Your task to perform on an android device: Go to ESPN.com Image 0: 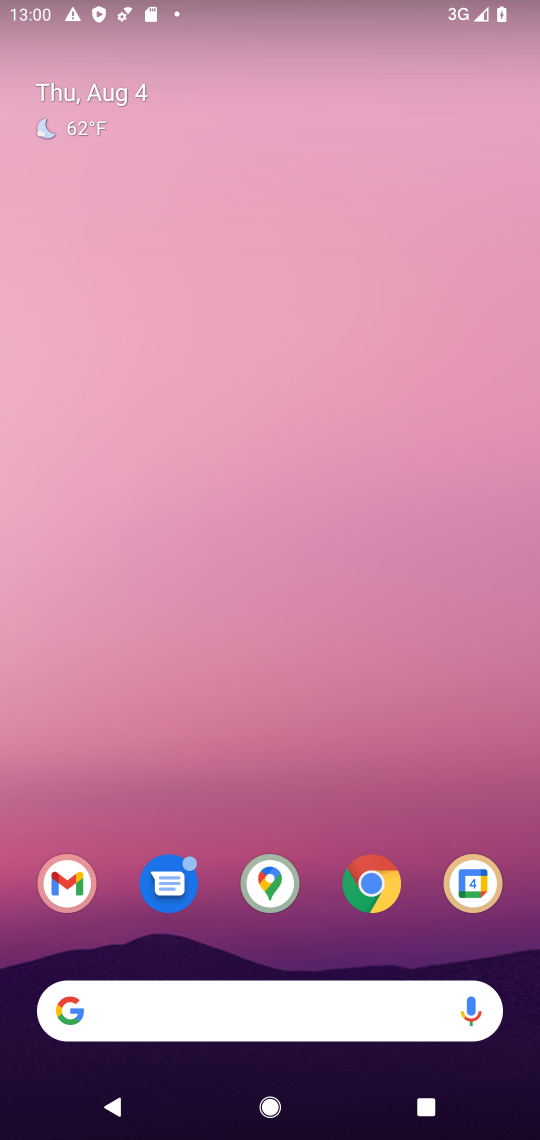
Step 0: click (198, 1008)
Your task to perform on an android device: Go to ESPN.com Image 1: 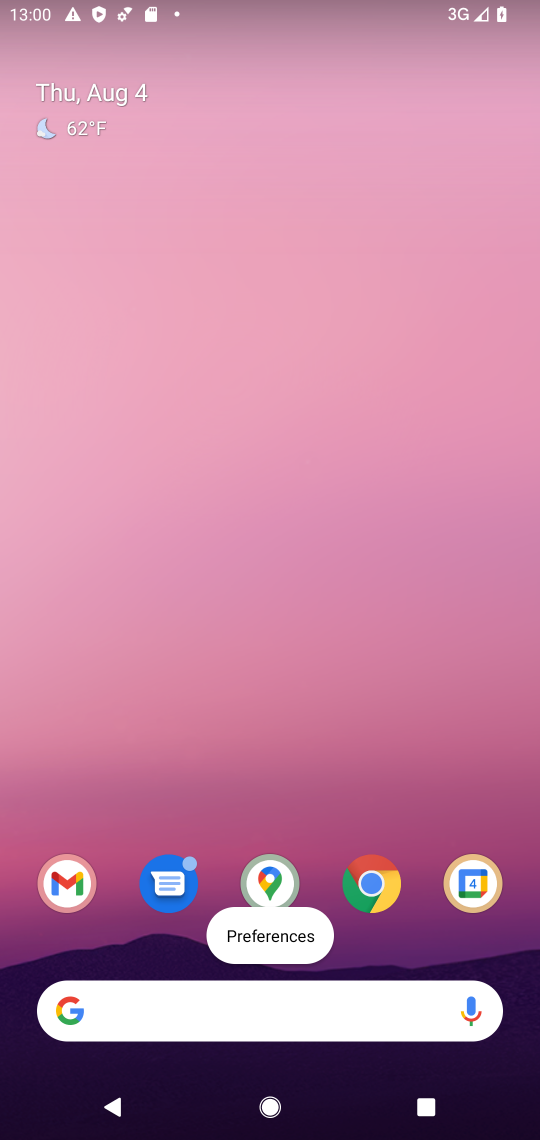
Step 1: click (212, 1001)
Your task to perform on an android device: Go to ESPN.com Image 2: 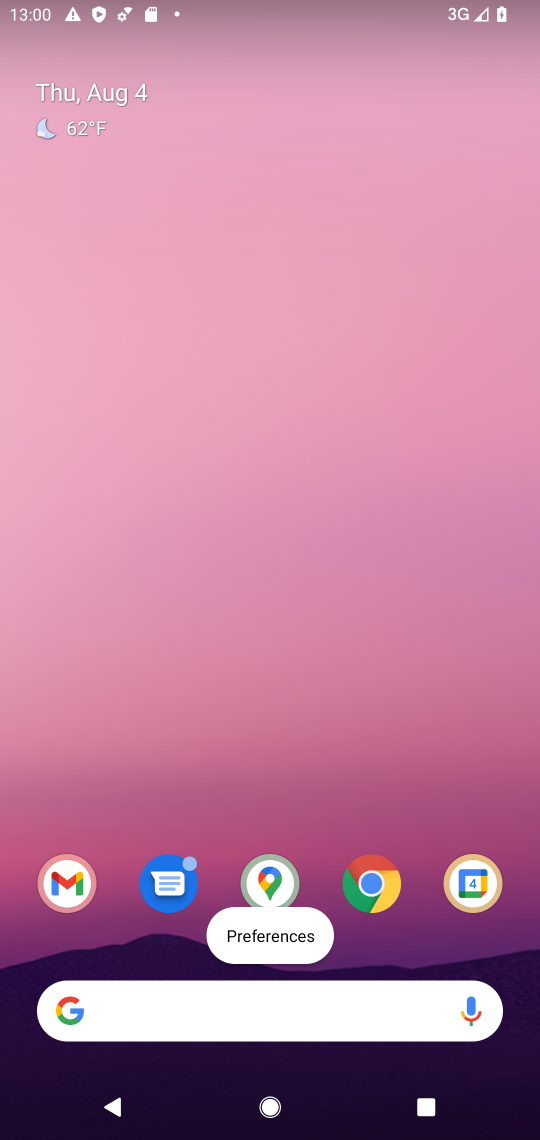
Step 2: drag from (354, 960) to (381, 268)
Your task to perform on an android device: Go to ESPN.com Image 3: 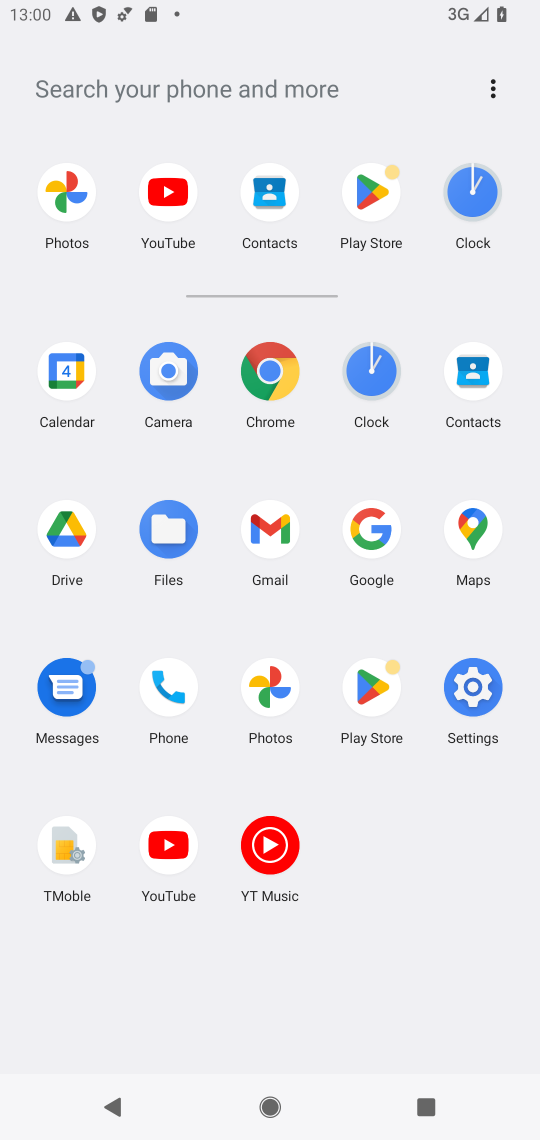
Step 3: click (201, 88)
Your task to perform on an android device: Go to ESPN.com Image 4: 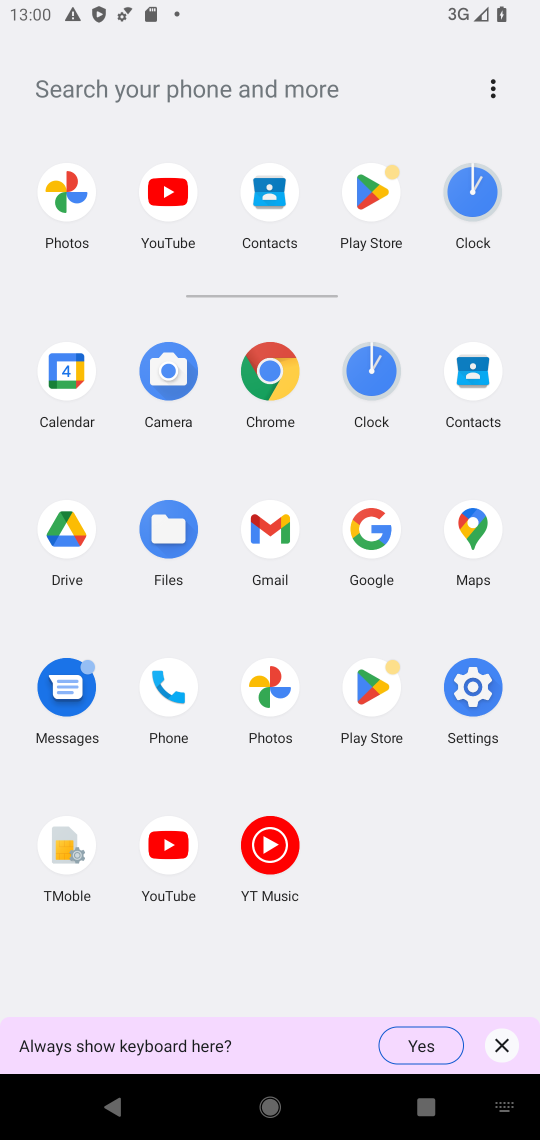
Step 4: type "espn.com"
Your task to perform on an android device: Go to ESPN.com Image 5: 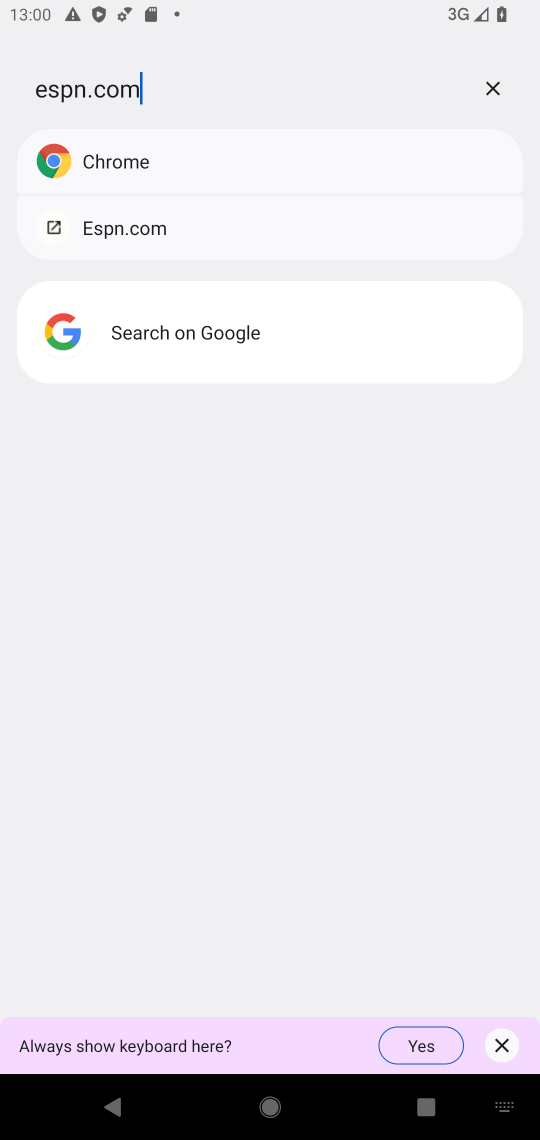
Step 5: click (131, 168)
Your task to perform on an android device: Go to ESPN.com Image 6: 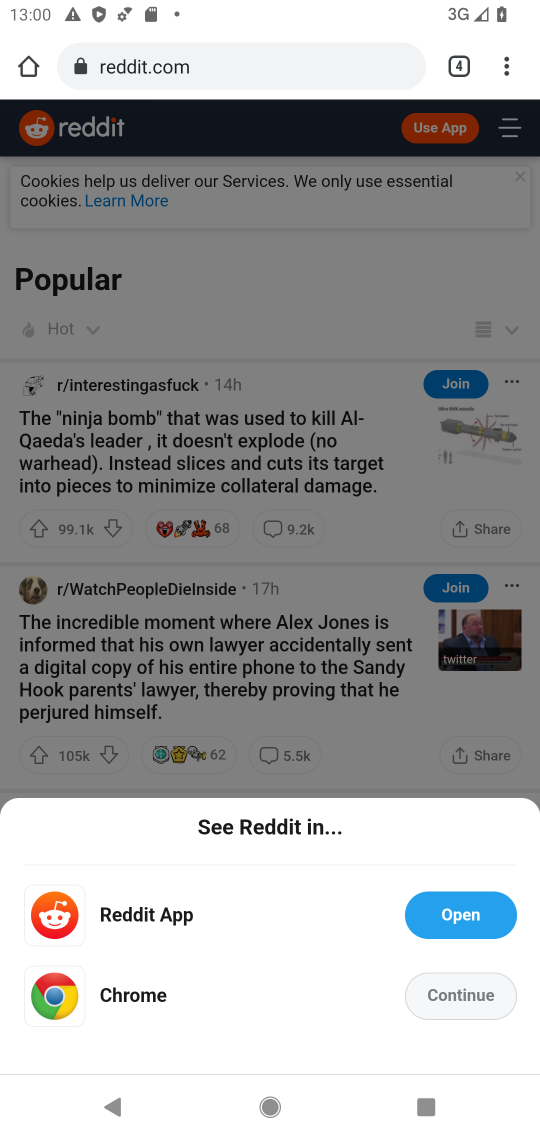
Step 6: drag from (301, 907) to (358, 477)
Your task to perform on an android device: Go to ESPN.com Image 7: 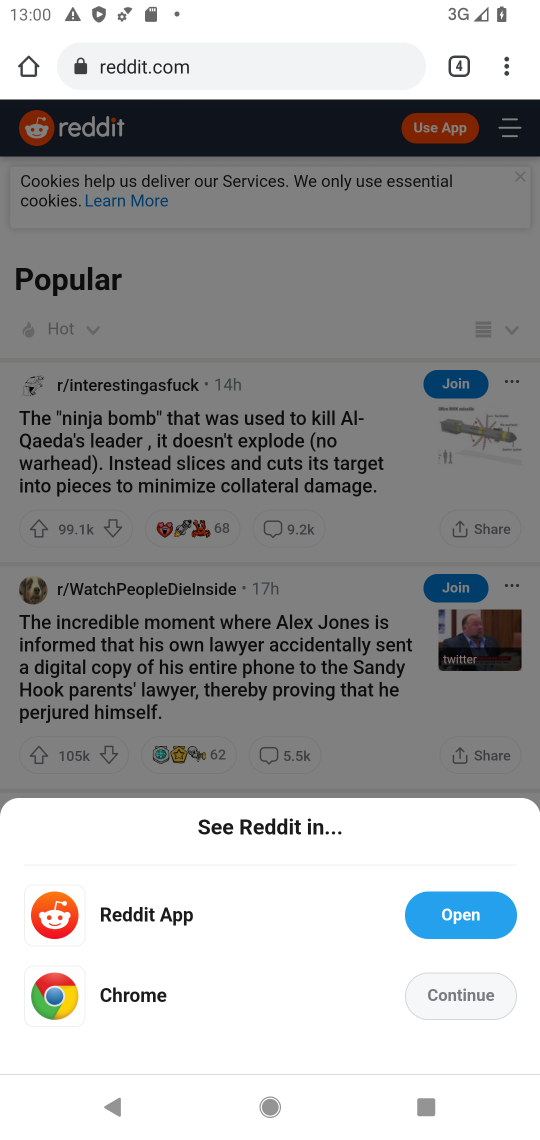
Step 7: drag from (310, 904) to (316, 675)
Your task to perform on an android device: Go to ESPN.com Image 8: 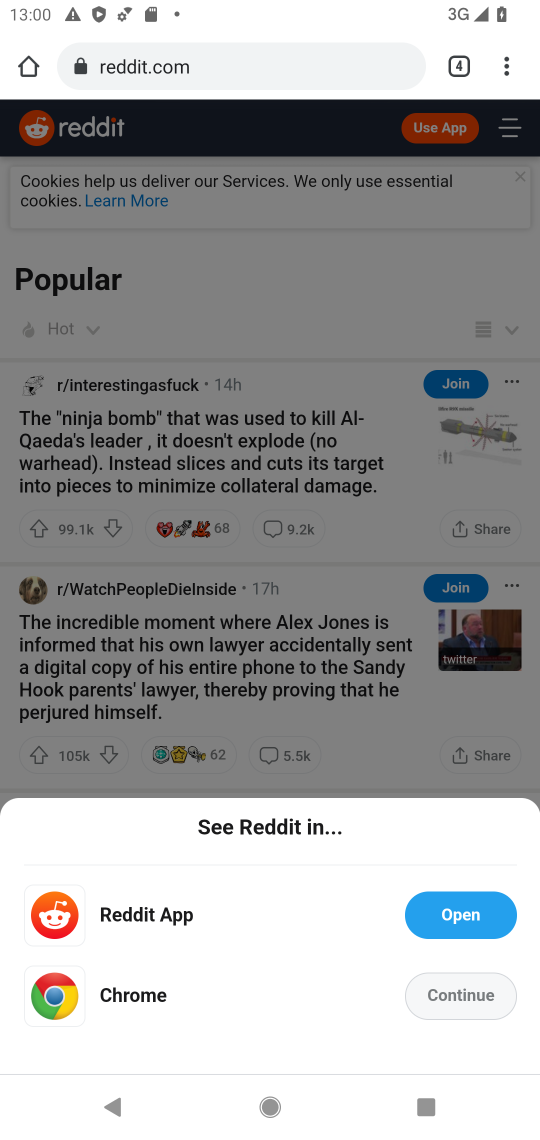
Step 8: drag from (294, 893) to (354, 528)
Your task to perform on an android device: Go to ESPN.com Image 9: 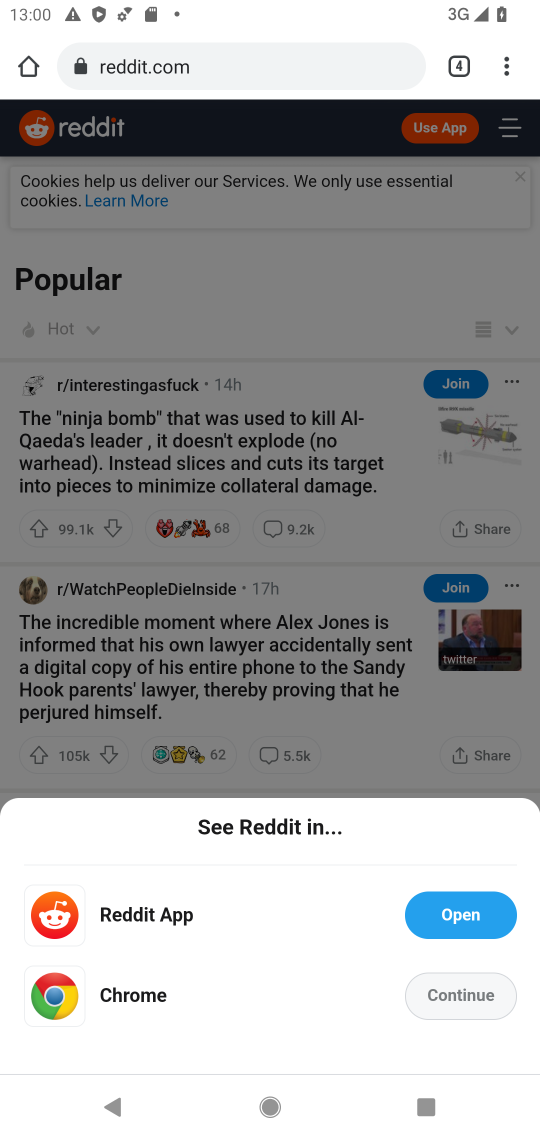
Step 9: drag from (274, 914) to (294, 697)
Your task to perform on an android device: Go to ESPN.com Image 10: 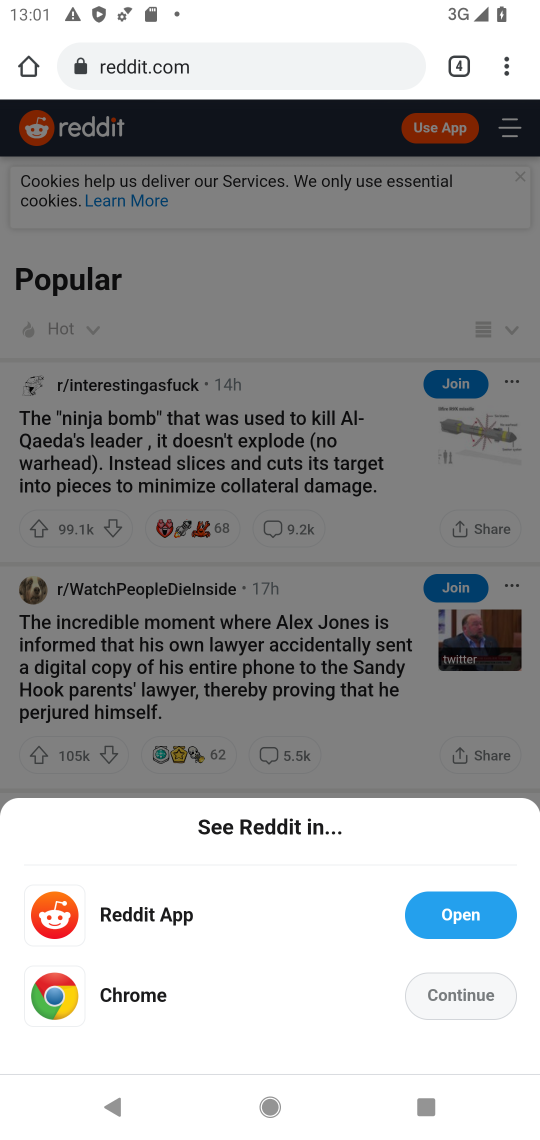
Step 10: click (235, 68)
Your task to perform on an android device: Go to ESPN.com Image 11: 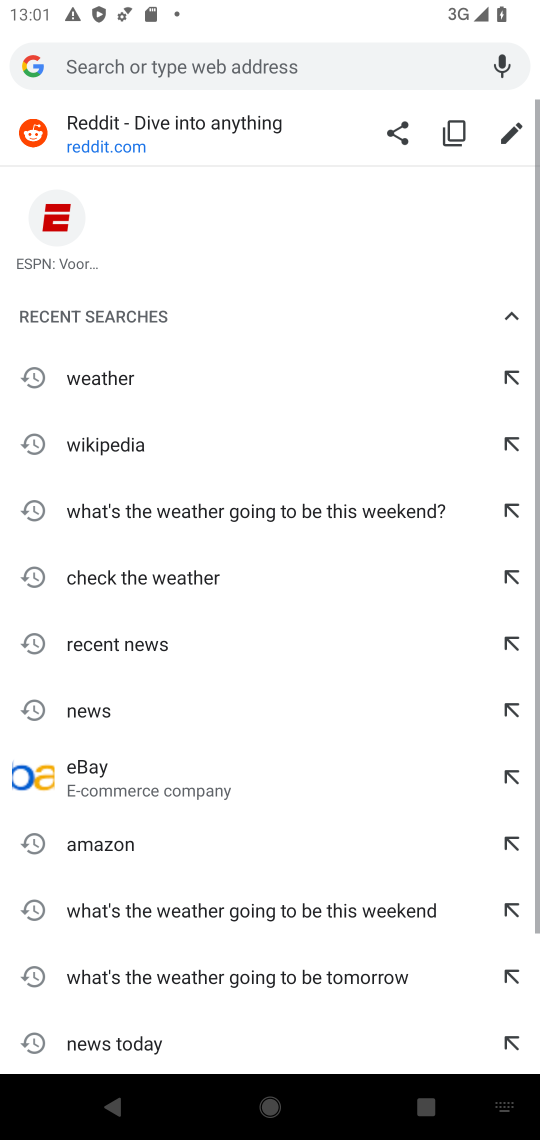
Step 11: type ""
Your task to perform on an android device: Go to ESPN.com Image 12: 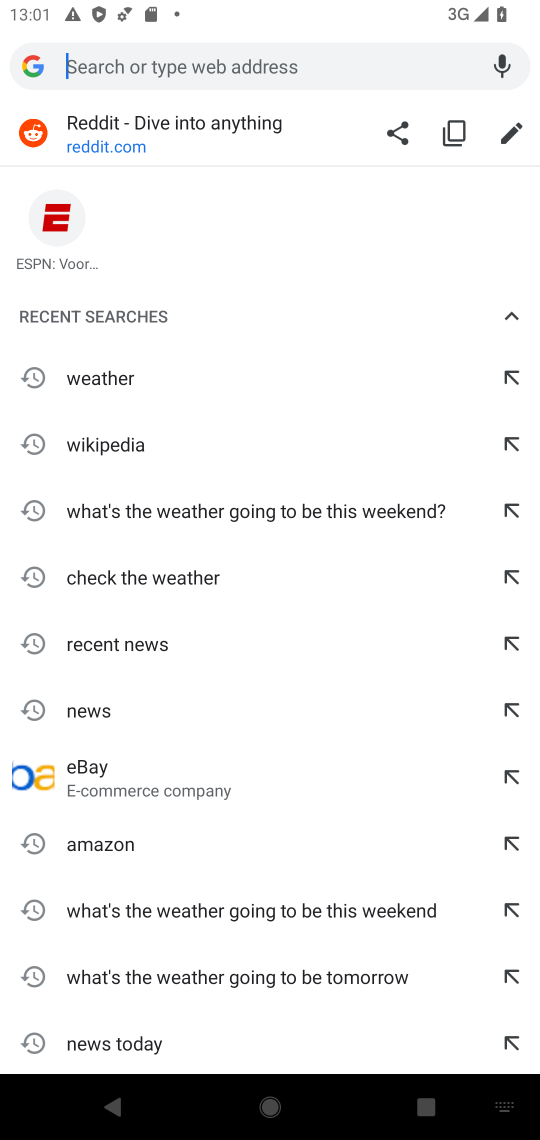
Step 12: type "ESPN.com"
Your task to perform on an android device: Go to ESPN.com Image 13: 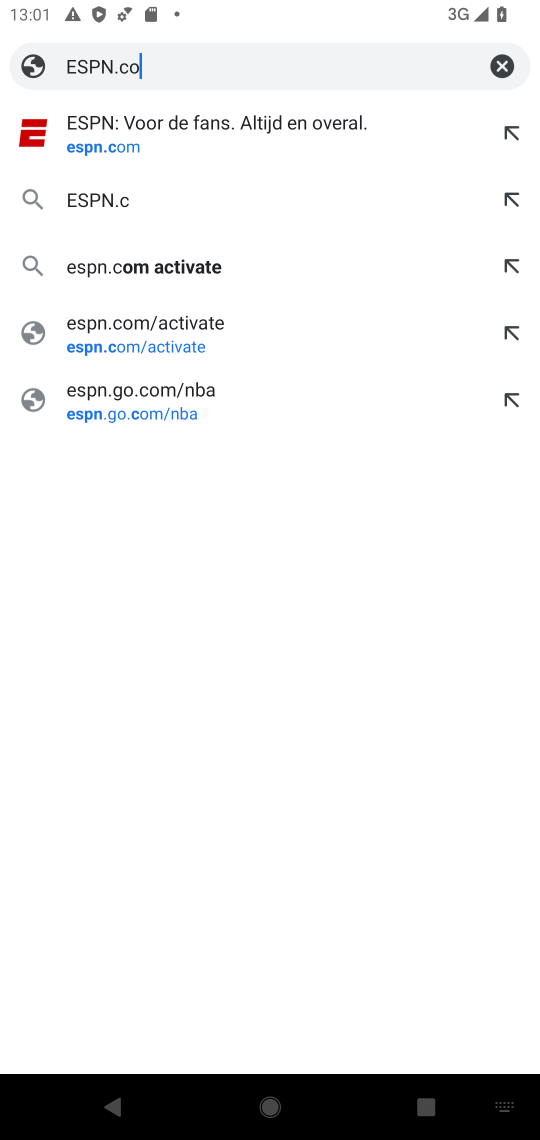
Step 13: type ""
Your task to perform on an android device: Go to ESPN.com Image 14: 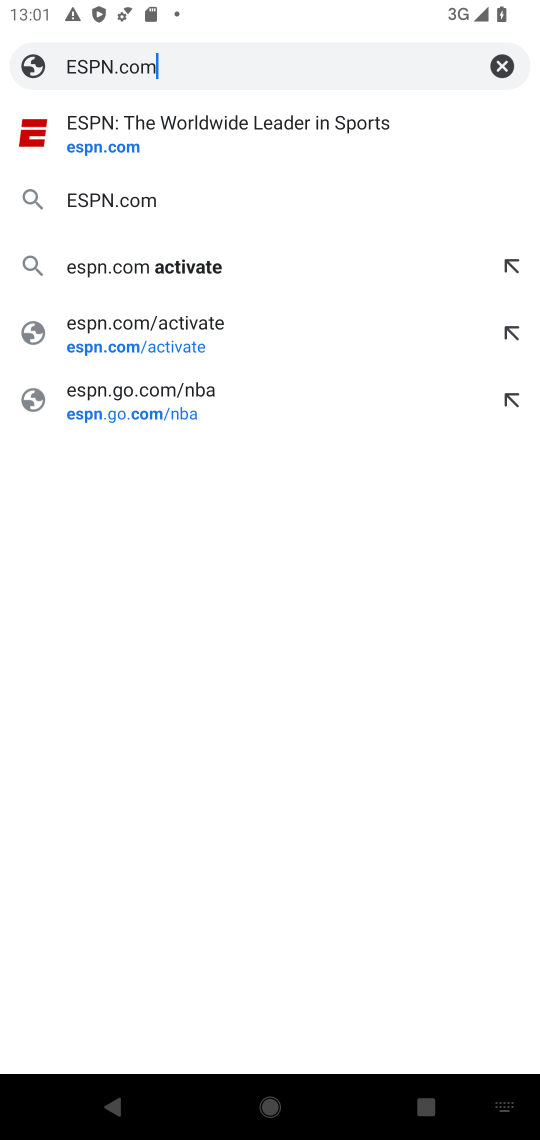
Step 14: click (123, 138)
Your task to perform on an android device: Go to ESPN.com Image 15: 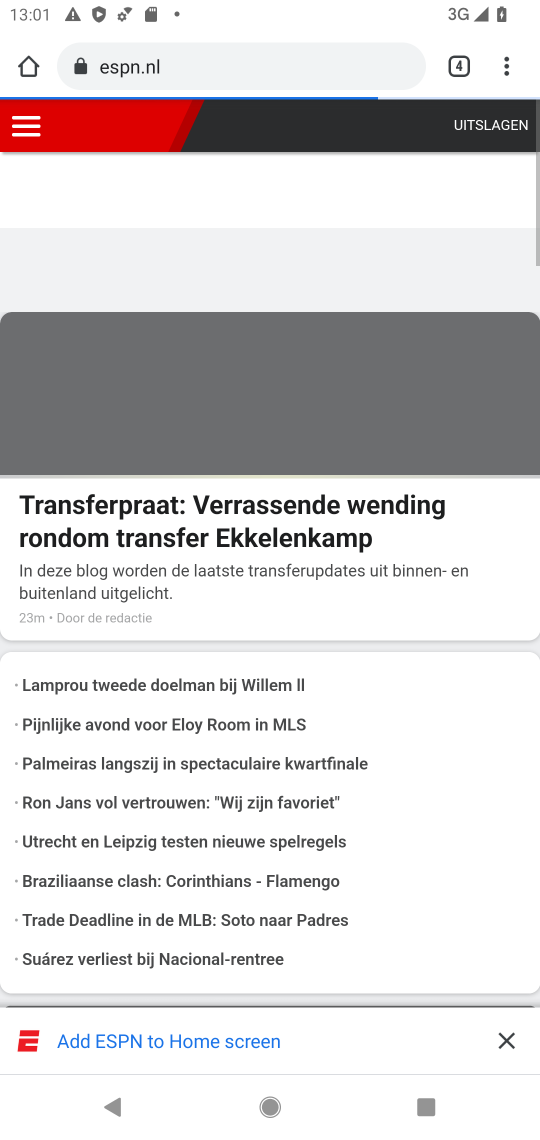
Step 15: task complete